Your task to perform on an android device: turn off notifications settings in the gmail app Image 0: 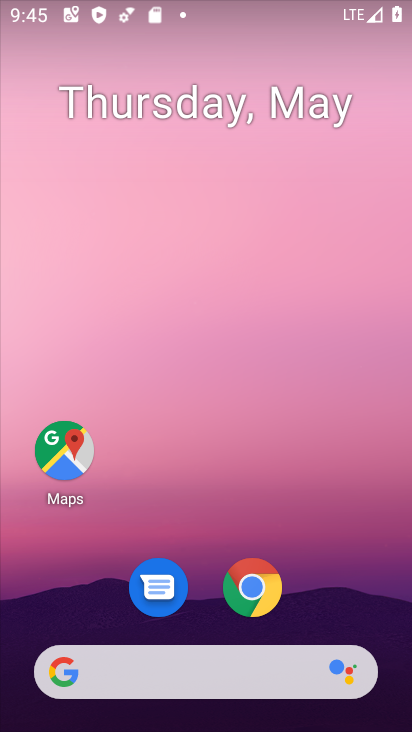
Step 0: drag from (372, 600) to (373, 2)
Your task to perform on an android device: turn off notifications settings in the gmail app Image 1: 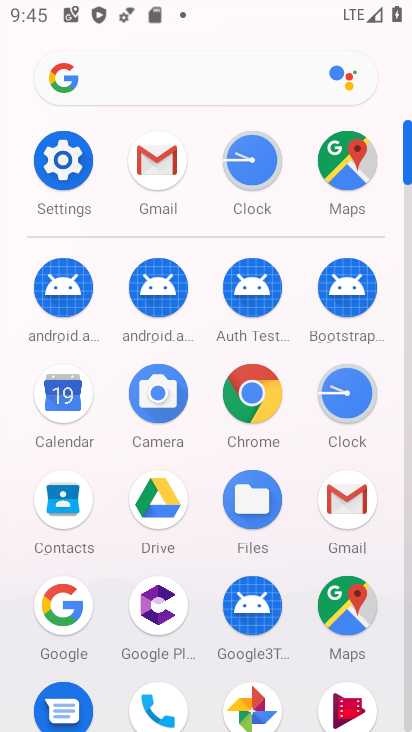
Step 1: click (164, 167)
Your task to perform on an android device: turn off notifications settings in the gmail app Image 2: 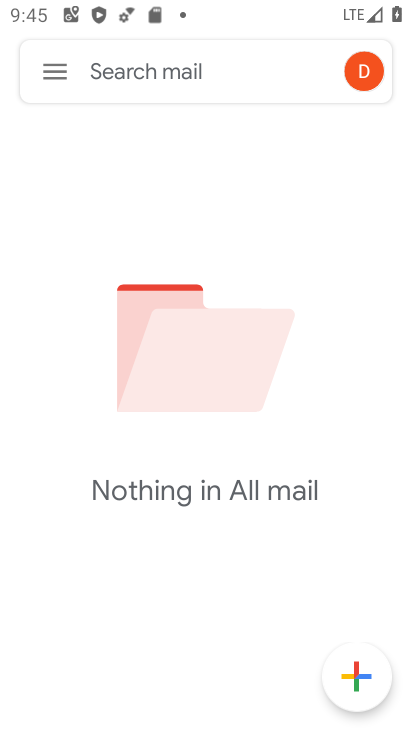
Step 2: click (52, 72)
Your task to perform on an android device: turn off notifications settings in the gmail app Image 3: 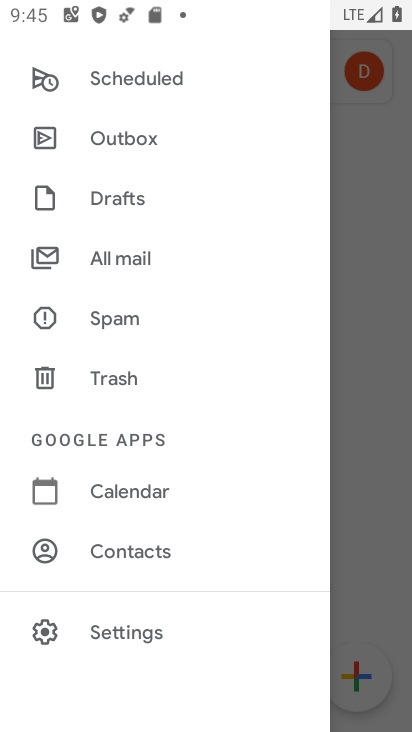
Step 3: click (97, 629)
Your task to perform on an android device: turn off notifications settings in the gmail app Image 4: 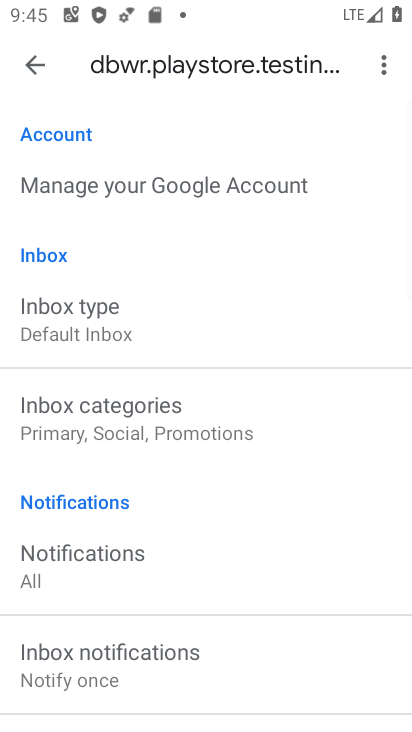
Step 4: click (37, 56)
Your task to perform on an android device: turn off notifications settings in the gmail app Image 5: 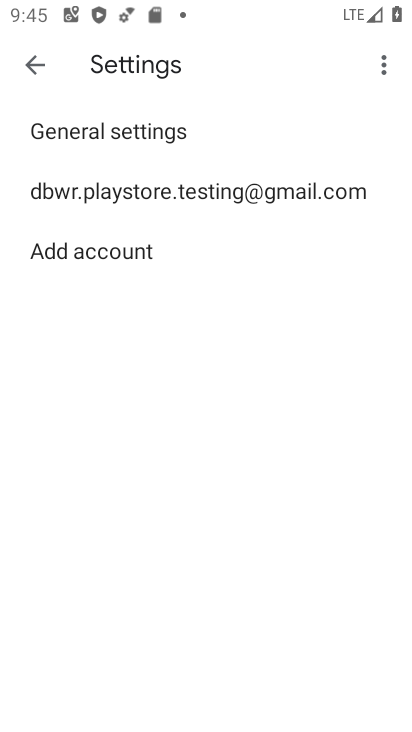
Step 5: click (88, 147)
Your task to perform on an android device: turn off notifications settings in the gmail app Image 6: 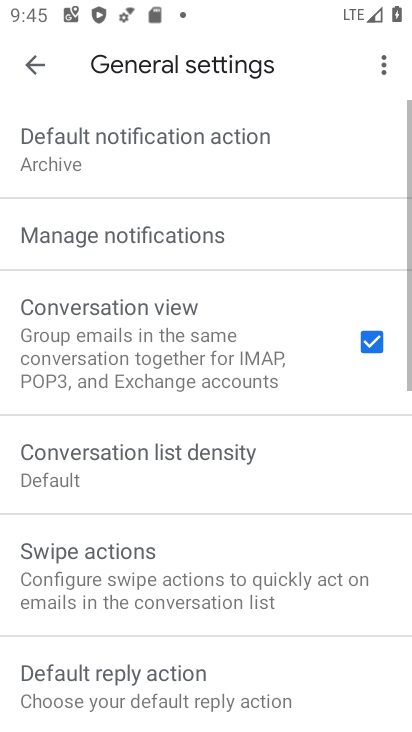
Step 6: click (96, 242)
Your task to perform on an android device: turn off notifications settings in the gmail app Image 7: 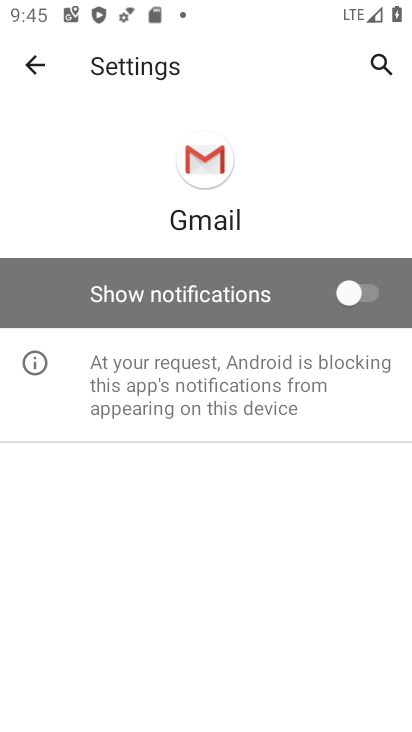
Step 7: task complete